Your task to perform on an android device: Go to Wikipedia Image 0: 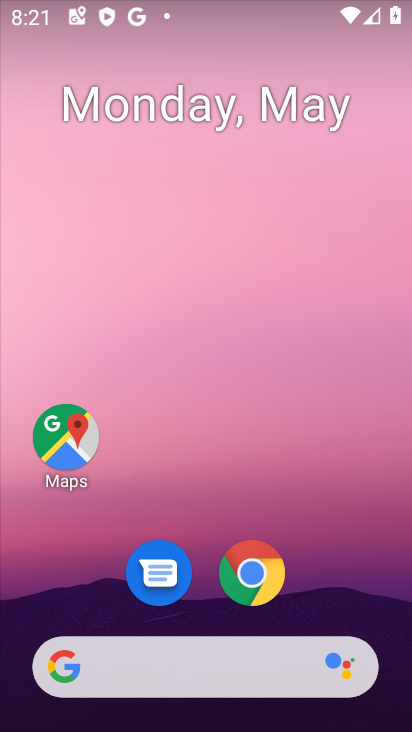
Step 0: drag from (196, 659) to (236, 63)
Your task to perform on an android device: Go to Wikipedia Image 1: 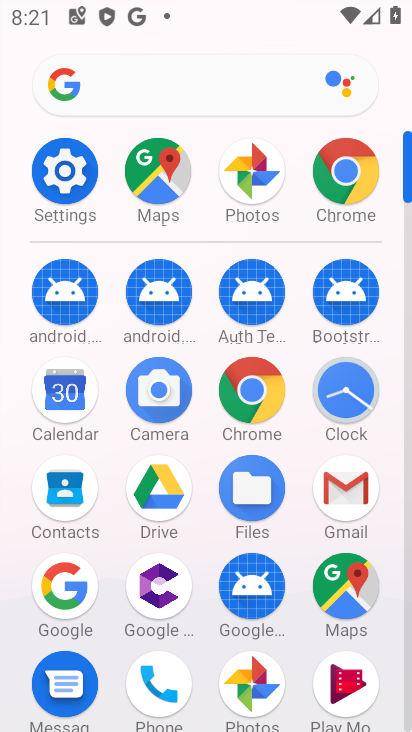
Step 1: click (347, 179)
Your task to perform on an android device: Go to Wikipedia Image 2: 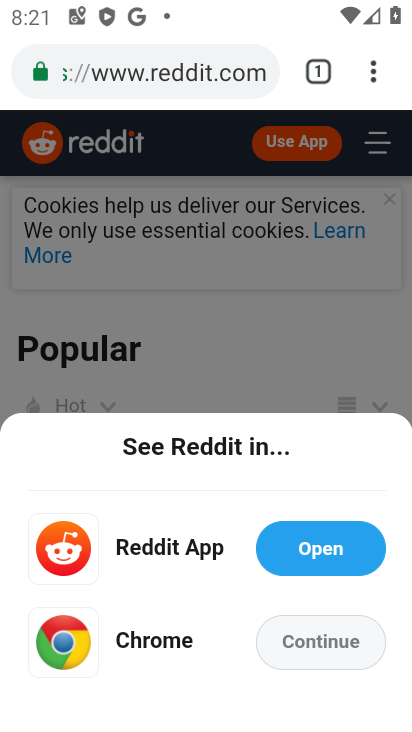
Step 2: click (148, 88)
Your task to perform on an android device: Go to Wikipedia Image 3: 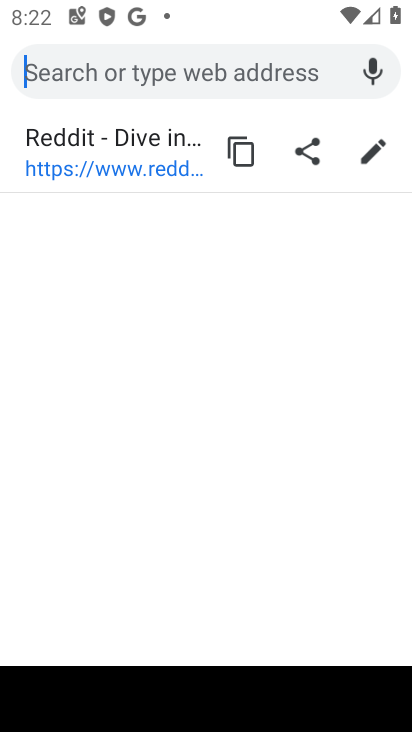
Step 3: type "wiki"
Your task to perform on an android device: Go to Wikipedia Image 4: 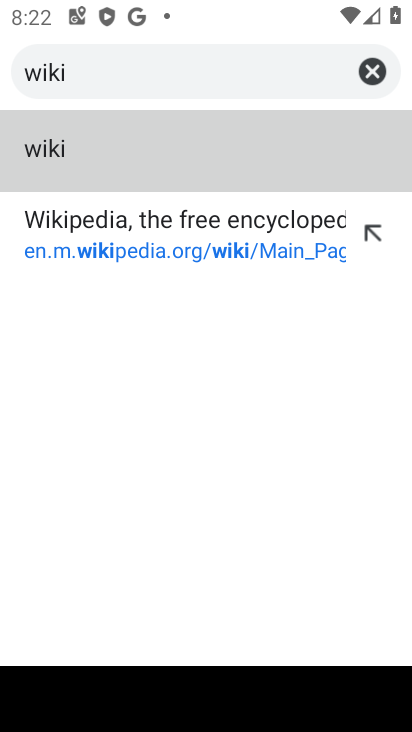
Step 4: click (171, 228)
Your task to perform on an android device: Go to Wikipedia Image 5: 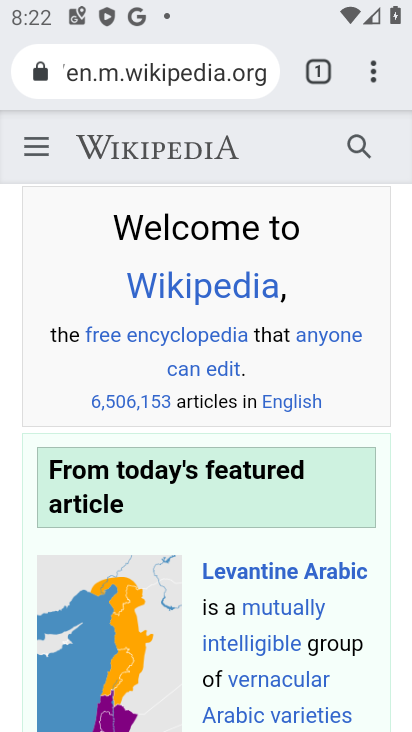
Step 5: task complete